Your task to perform on an android device: read, delete, or share a saved page in the chrome app Image 0: 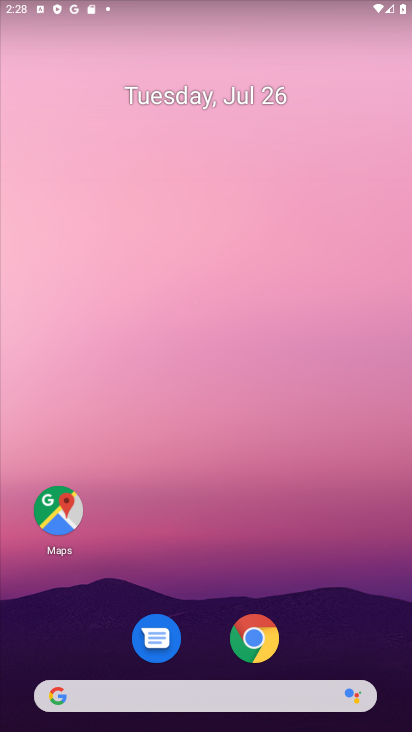
Step 0: click (260, 640)
Your task to perform on an android device: read, delete, or share a saved page in the chrome app Image 1: 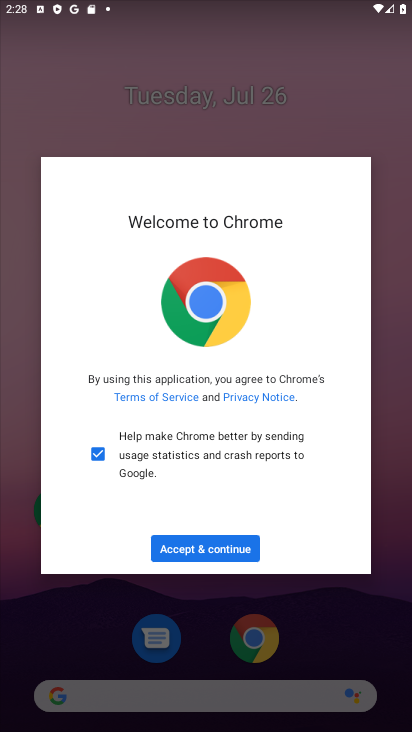
Step 1: click (203, 551)
Your task to perform on an android device: read, delete, or share a saved page in the chrome app Image 2: 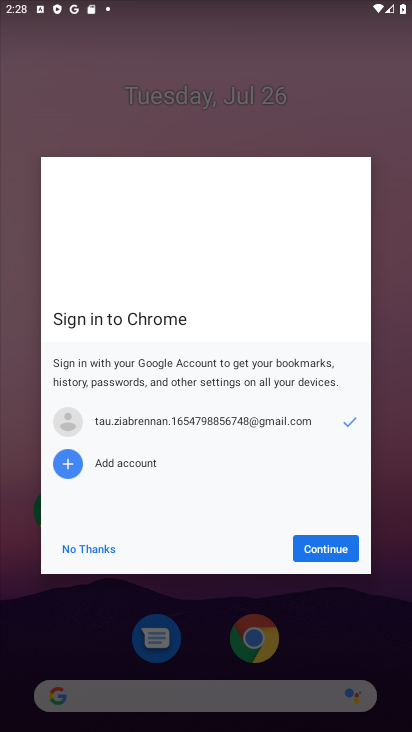
Step 2: click (316, 551)
Your task to perform on an android device: read, delete, or share a saved page in the chrome app Image 3: 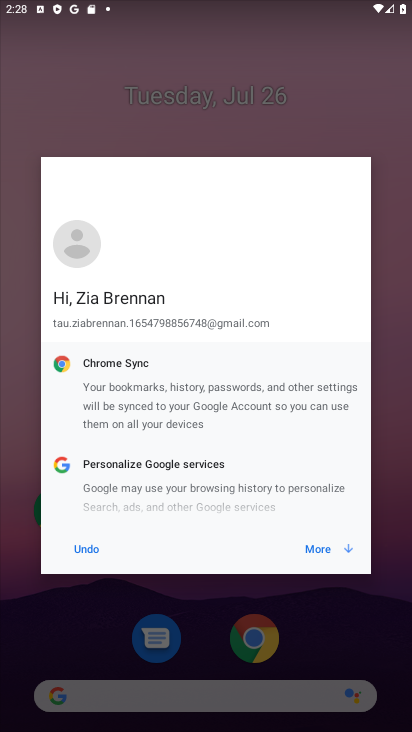
Step 3: click (315, 546)
Your task to perform on an android device: read, delete, or share a saved page in the chrome app Image 4: 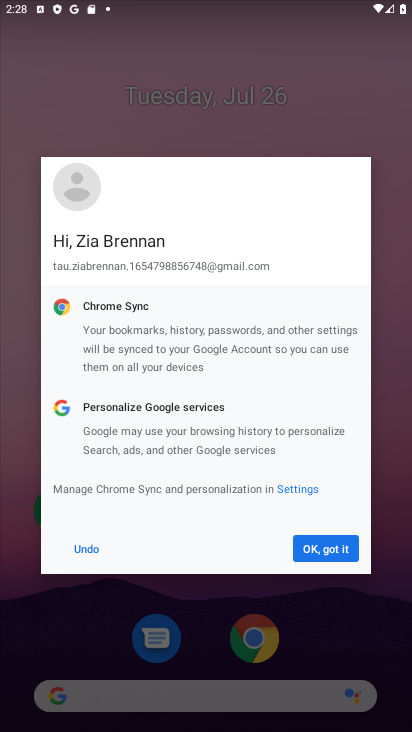
Step 4: click (323, 548)
Your task to perform on an android device: read, delete, or share a saved page in the chrome app Image 5: 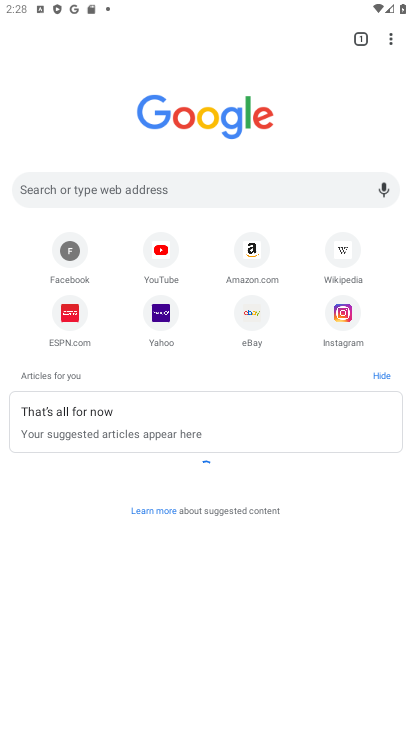
Step 5: click (392, 44)
Your task to perform on an android device: read, delete, or share a saved page in the chrome app Image 6: 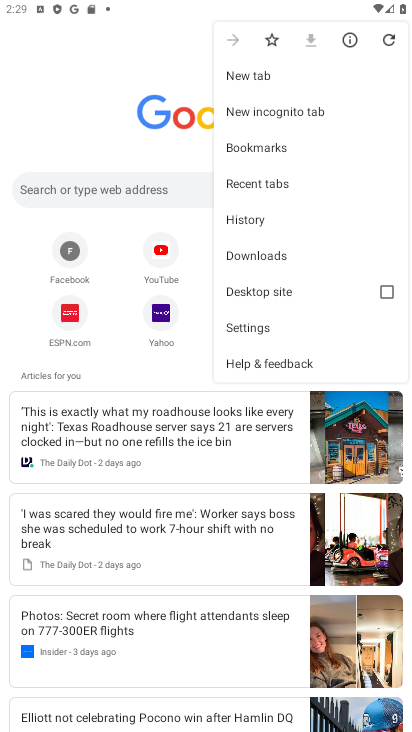
Step 6: click (302, 257)
Your task to perform on an android device: read, delete, or share a saved page in the chrome app Image 7: 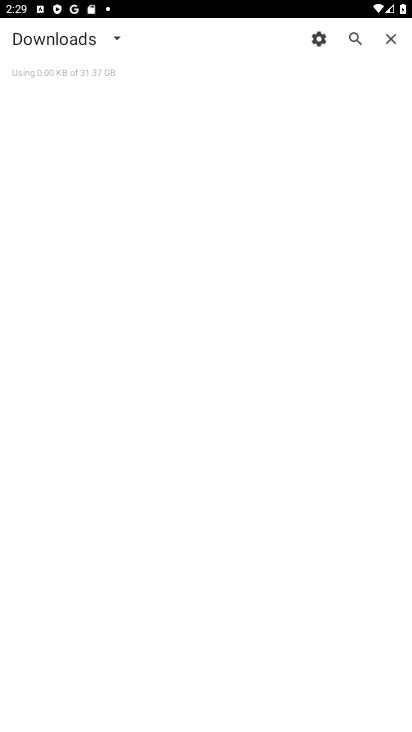
Step 7: task complete